Your task to perform on an android device: toggle priority inbox in the gmail app Image 0: 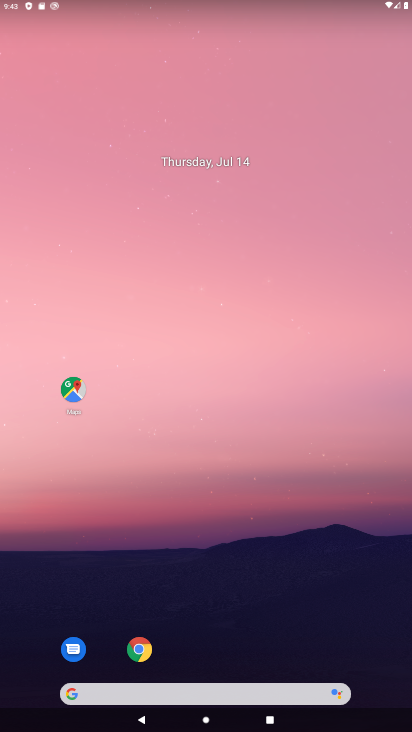
Step 0: drag from (180, 662) to (179, 58)
Your task to perform on an android device: toggle priority inbox in the gmail app Image 1: 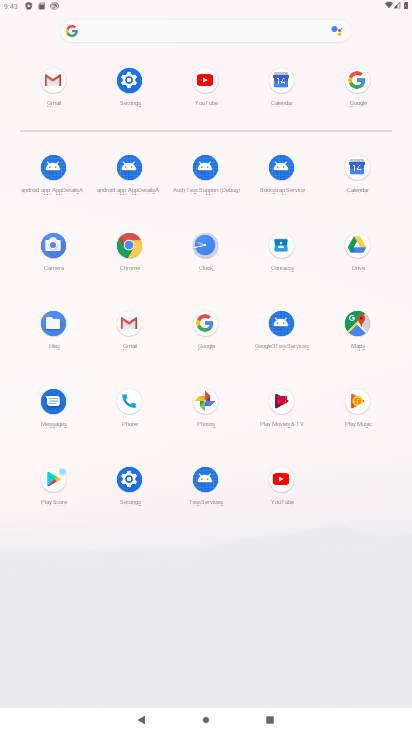
Step 1: click (51, 67)
Your task to perform on an android device: toggle priority inbox in the gmail app Image 2: 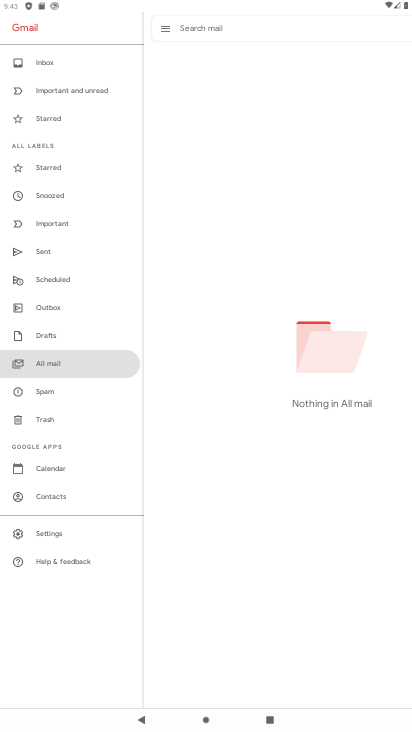
Step 2: click (65, 533)
Your task to perform on an android device: toggle priority inbox in the gmail app Image 3: 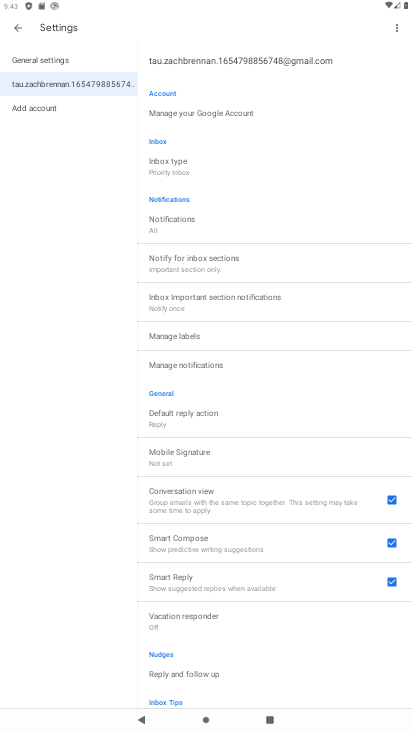
Step 3: click (192, 167)
Your task to perform on an android device: toggle priority inbox in the gmail app Image 4: 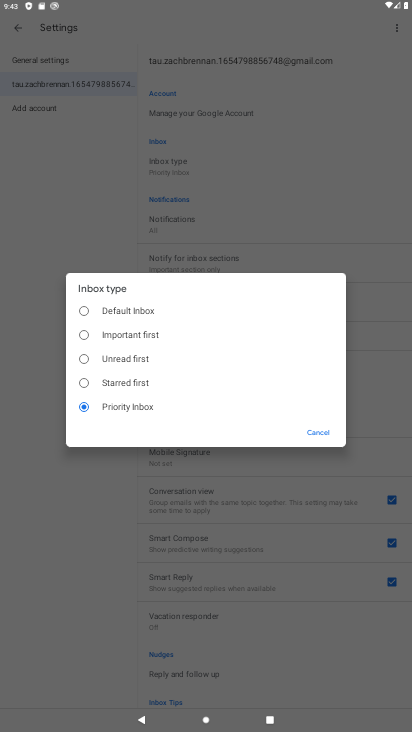
Step 4: click (138, 313)
Your task to perform on an android device: toggle priority inbox in the gmail app Image 5: 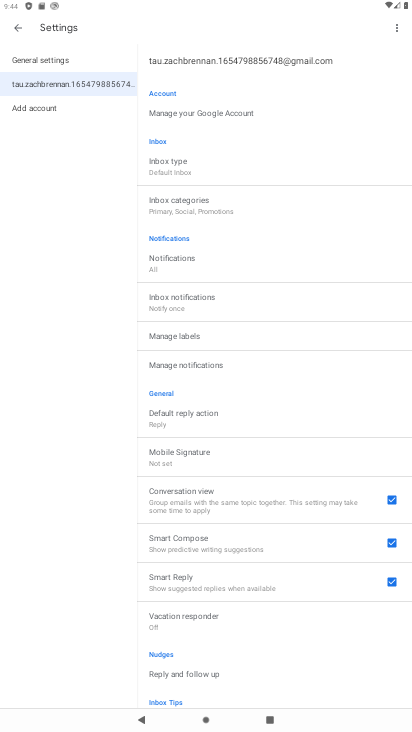
Step 5: task complete